Your task to perform on an android device: Toggle the flashlight Image 0: 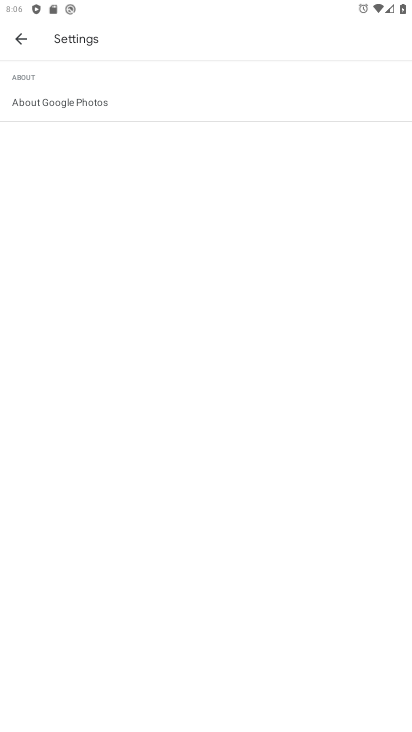
Step 0: press home button
Your task to perform on an android device: Toggle the flashlight Image 1: 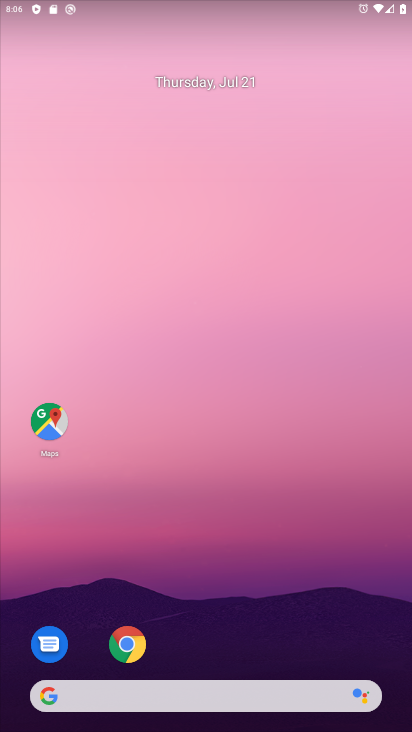
Step 1: drag from (225, 9) to (239, 296)
Your task to perform on an android device: Toggle the flashlight Image 2: 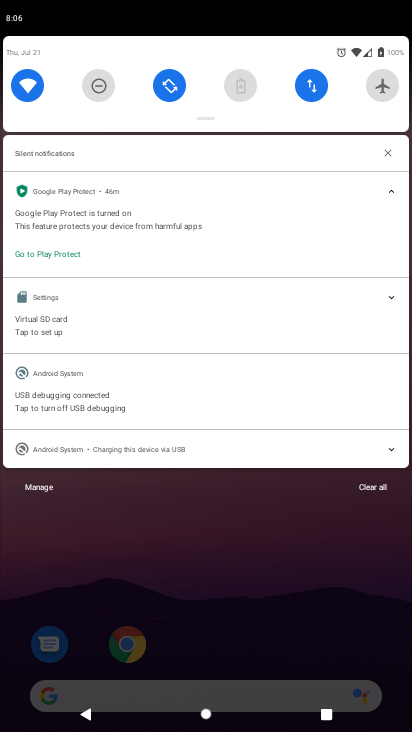
Step 2: drag from (199, 55) to (204, 285)
Your task to perform on an android device: Toggle the flashlight Image 3: 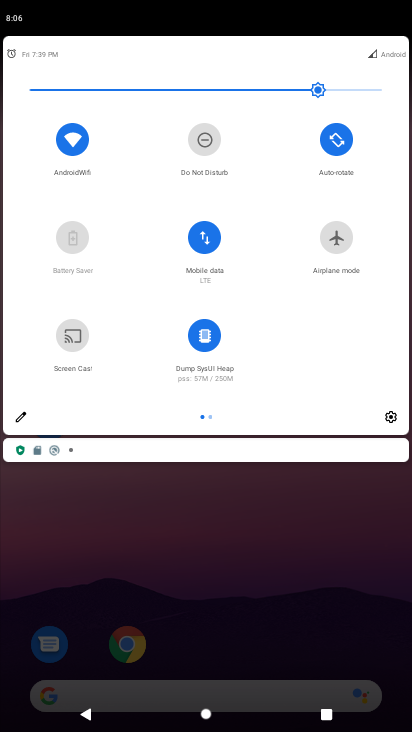
Step 3: click (19, 425)
Your task to perform on an android device: Toggle the flashlight Image 4: 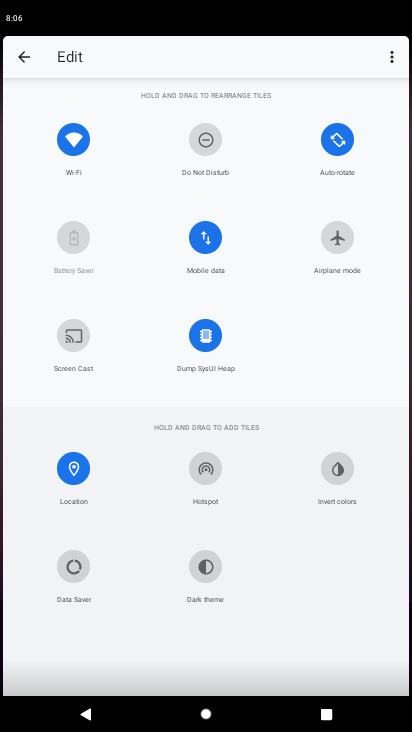
Step 4: task complete